Your task to perform on an android device: change the clock style Image 0: 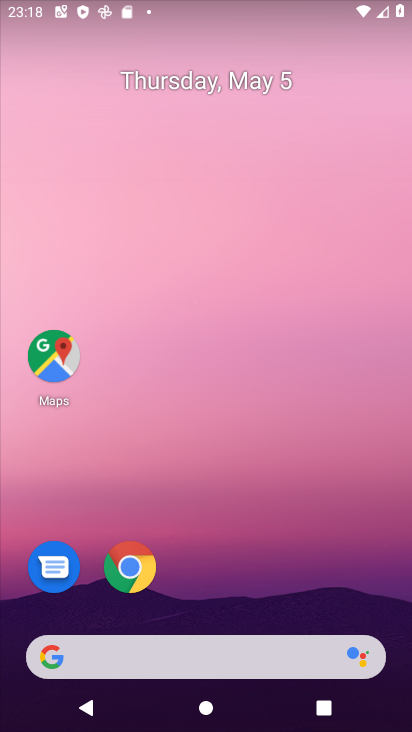
Step 0: drag from (216, 594) to (221, 164)
Your task to perform on an android device: change the clock style Image 1: 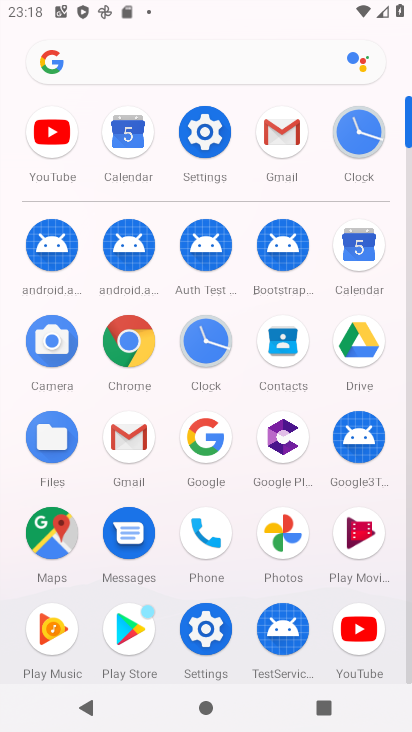
Step 1: click (361, 135)
Your task to perform on an android device: change the clock style Image 2: 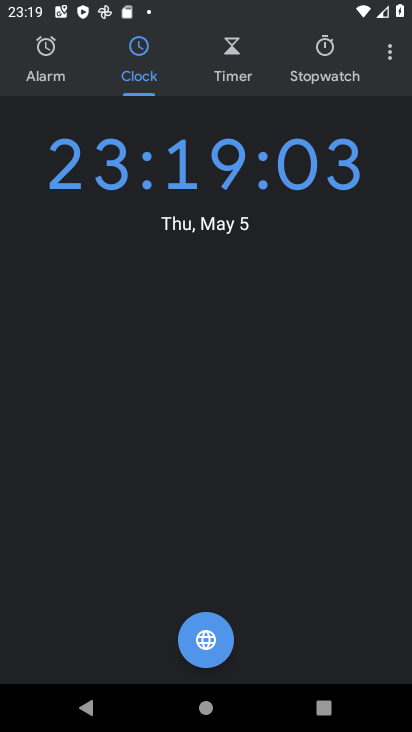
Step 2: click (390, 51)
Your task to perform on an android device: change the clock style Image 3: 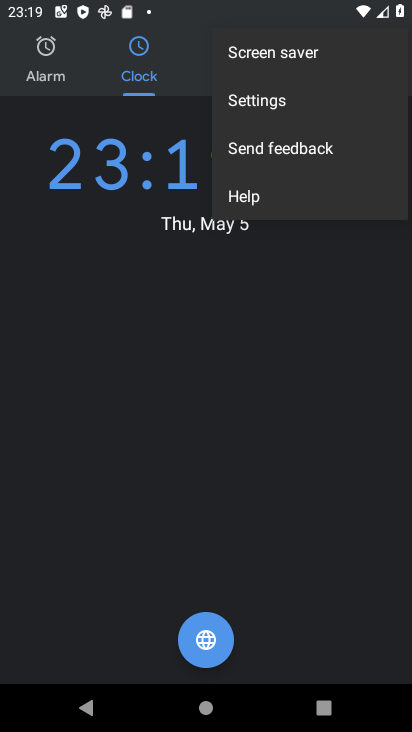
Step 3: click (289, 102)
Your task to perform on an android device: change the clock style Image 4: 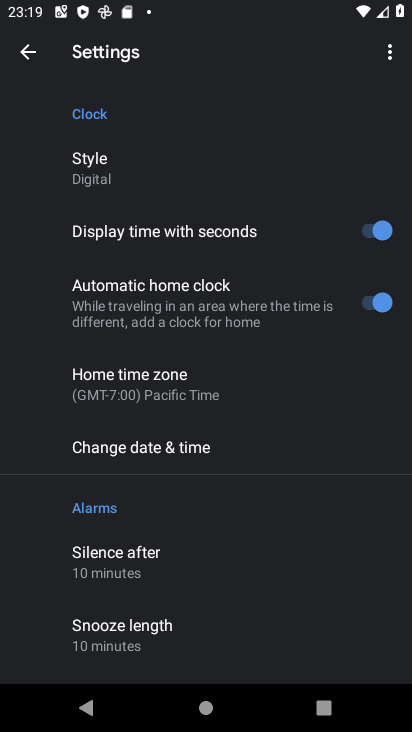
Step 4: click (173, 163)
Your task to perform on an android device: change the clock style Image 5: 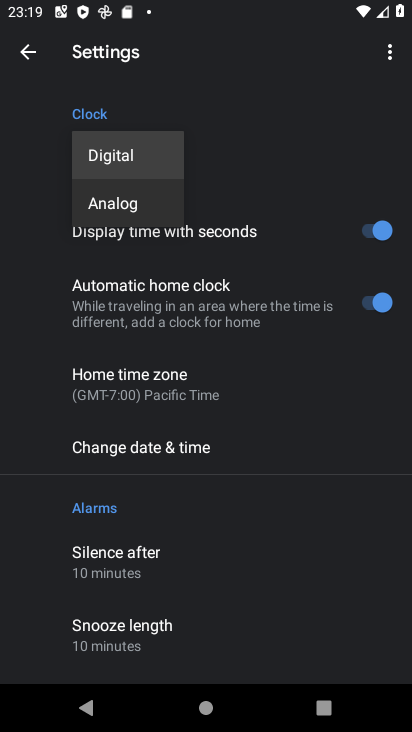
Step 5: click (149, 194)
Your task to perform on an android device: change the clock style Image 6: 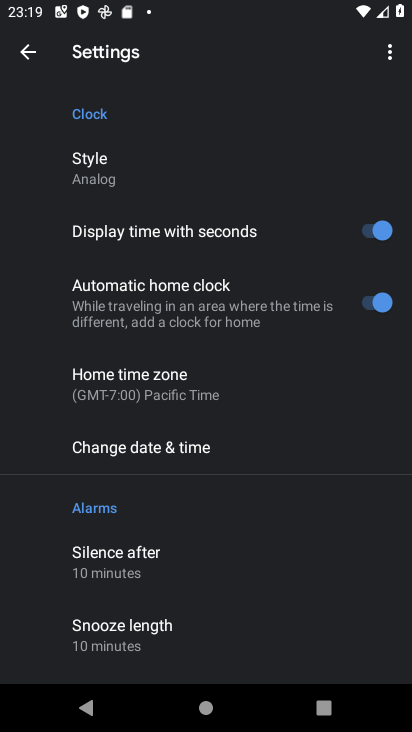
Step 6: task complete